Your task to perform on an android device: snooze an email in the gmail app Image 0: 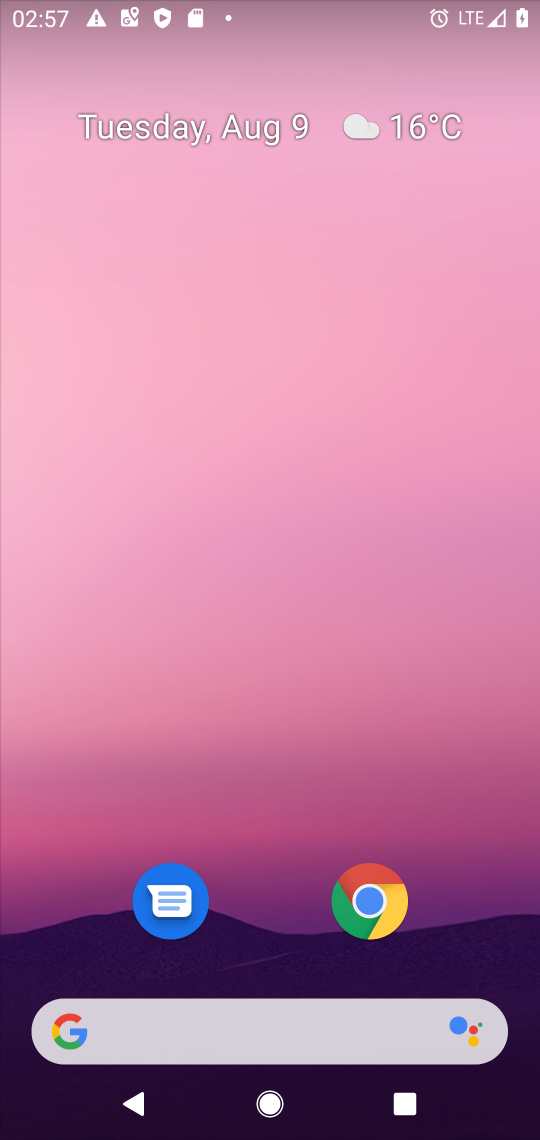
Step 0: drag from (514, 951) to (437, 120)
Your task to perform on an android device: snooze an email in the gmail app Image 1: 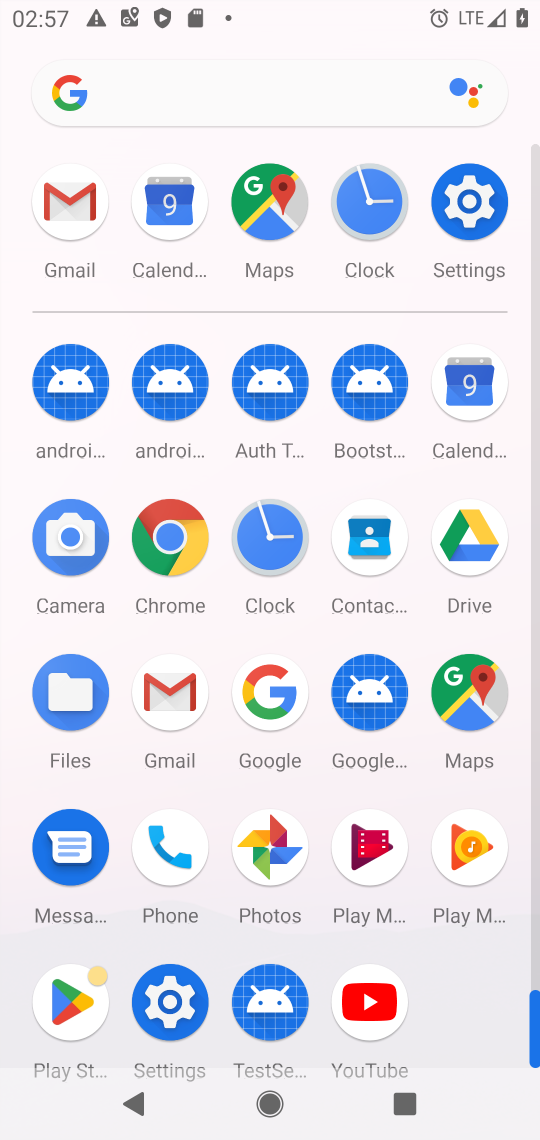
Step 1: click (168, 694)
Your task to perform on an android device: snooze an email in the gmail app Image 2: 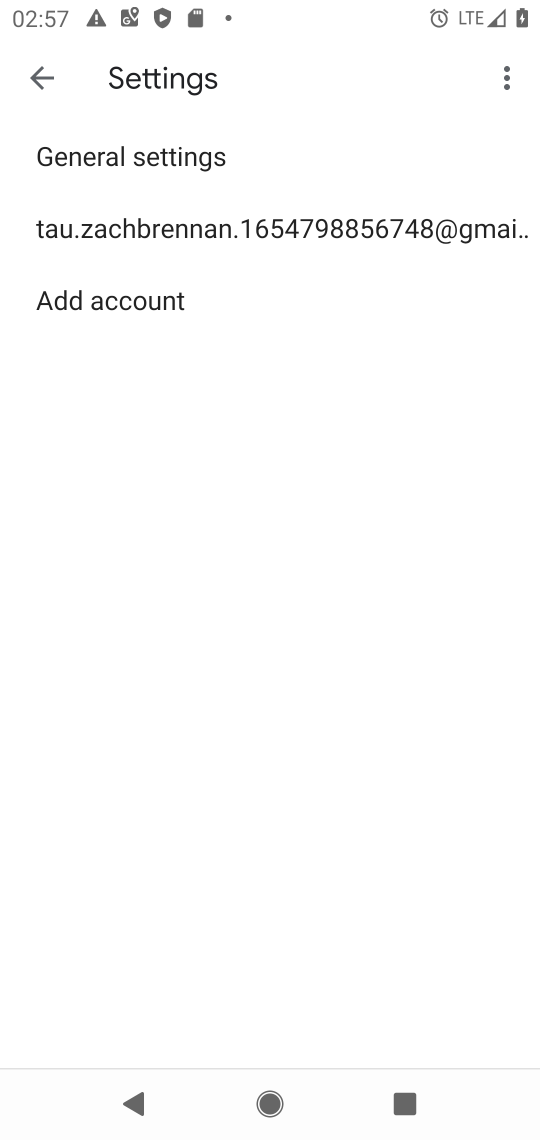
Step 2: press back button
Your task to perform on an android device: snooze an email in the gmail app Image 3: 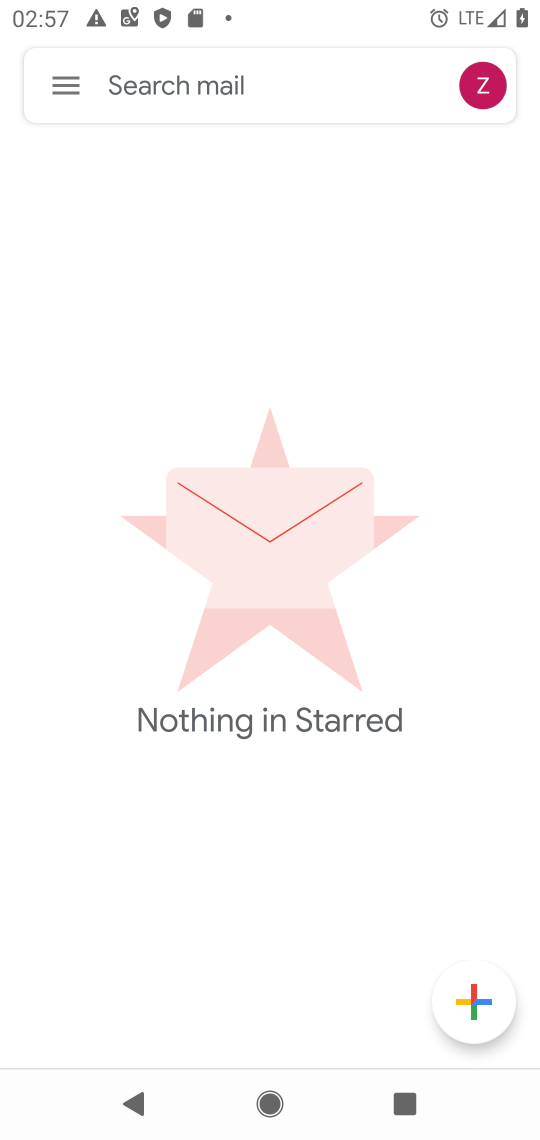
Step 3: click (68, 92)
Your task to perform on an android device: snooze an email in the gmail app Image 4: 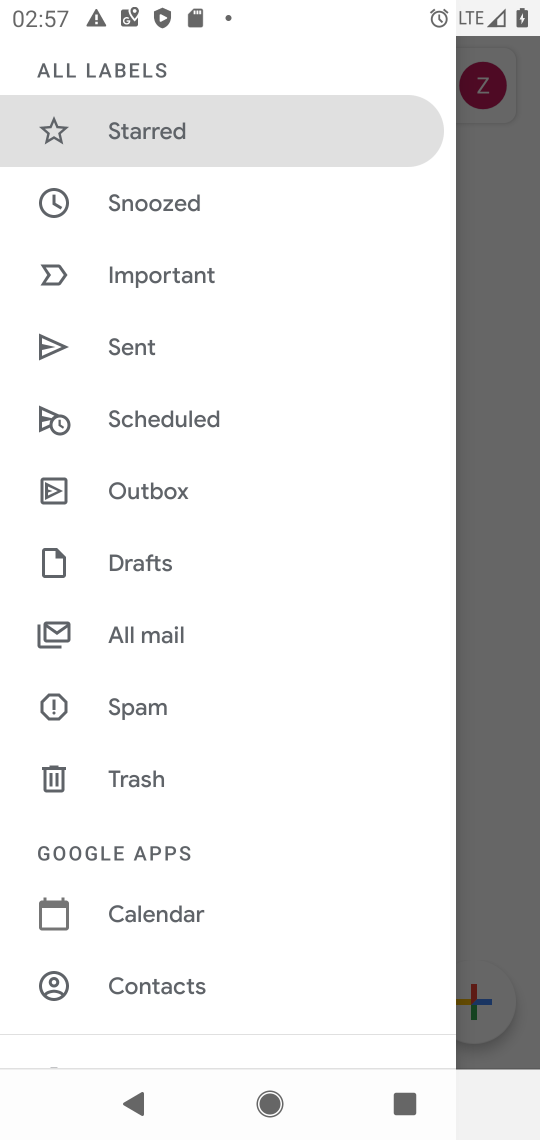
Step 4: click (156, 624)
Your task to perform on an android device: snooze an email in the gmail app Image 5: 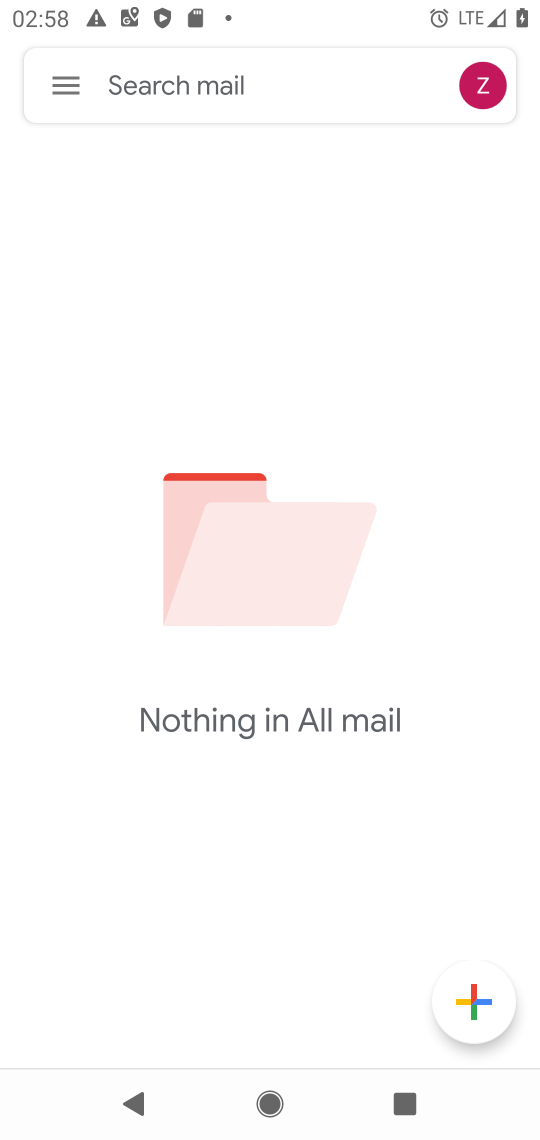
Step 5: task complete